Your task to perform on an android device: Check the news Image 0: 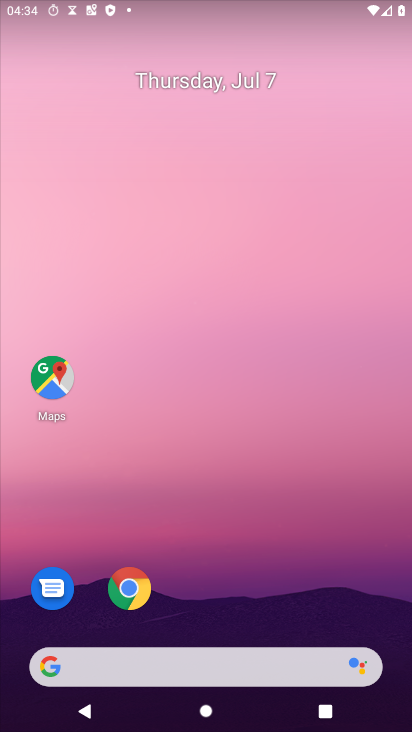
Step 0: click (48, 666)
Your task to perform on an android device: Check the news Image 1: 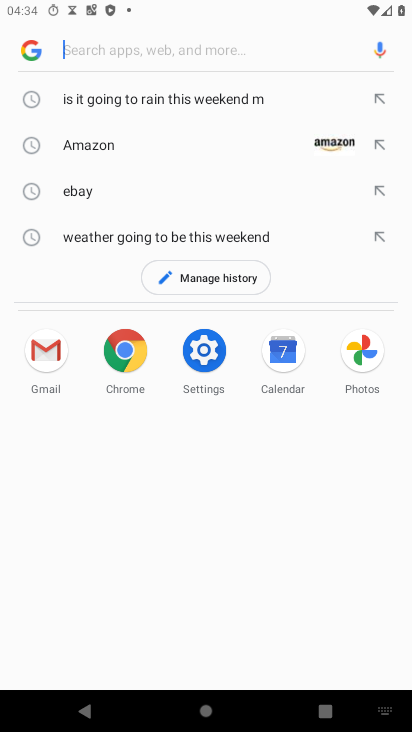
Step 1: type "news"
Your task to perform on an android device: Check the news Image 2: 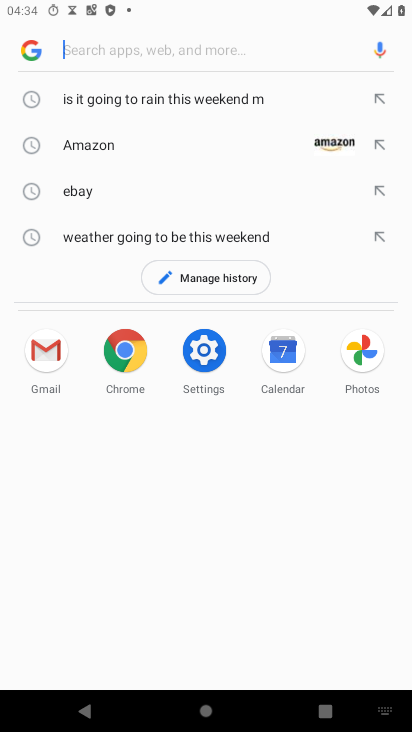
Step 2: click (135, 53)
Your task to perform on an android device: Check the news Image 3: 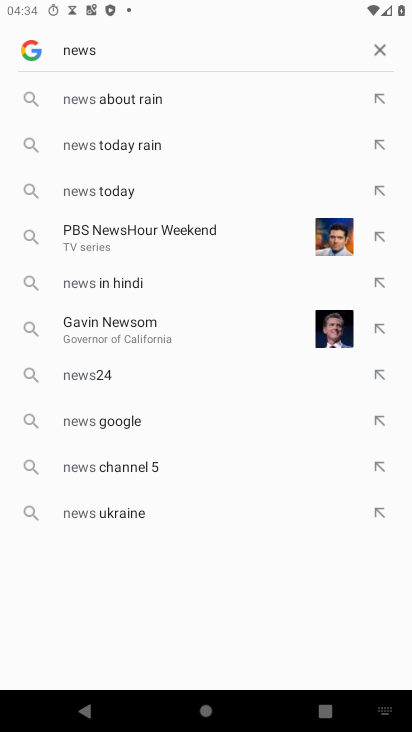
Step 3: click (114, 185)
Your task to perform on an android device: Check the news Image 4: 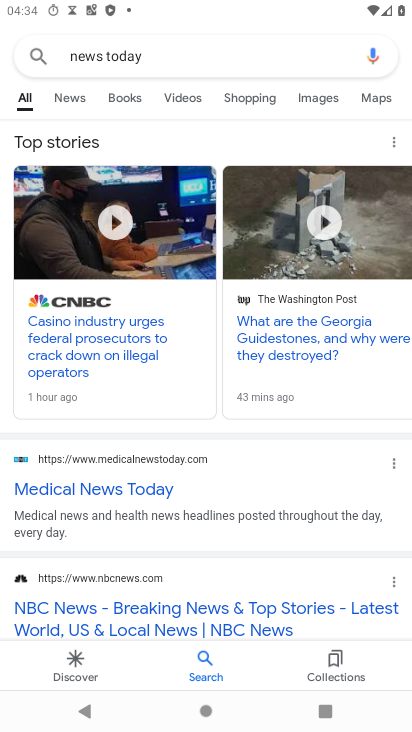
Step 4: task complete